Your task to perform on an android device: change text size in settings app Image 0: 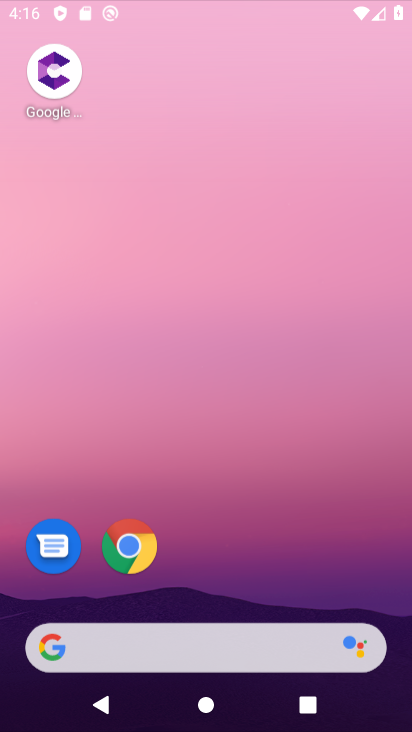
Step 0: click (270, 199)
Your task to perform on an android device: change text size in settings app Image 1: 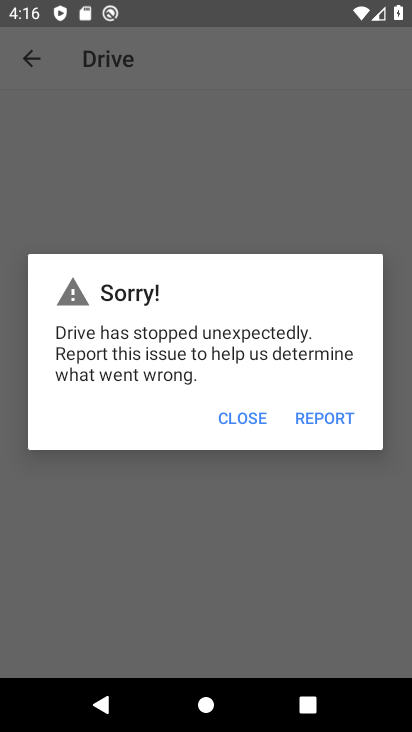
Step 1: press home button
Your task to perform on an android device: change text size in settings app Image 2: 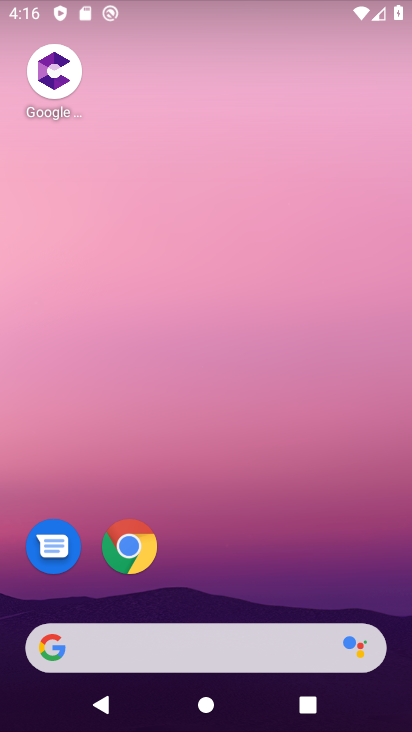
Step 2: drag from (326, 522) to (310, 57)
Your task to perform on an android device: change text size in settings app Image 3: 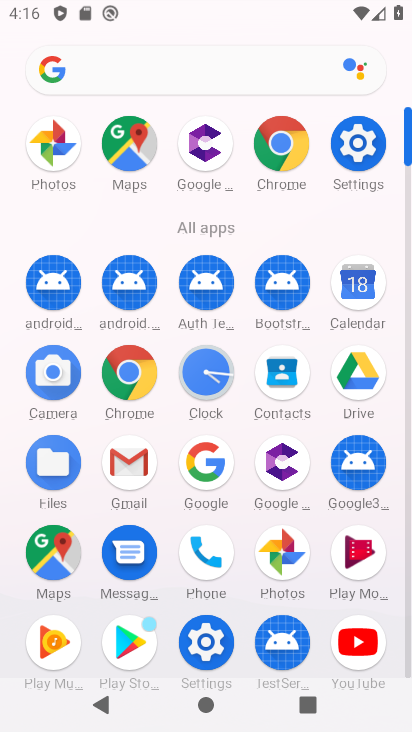
Step 3: click (365, 165)
Your task to perform on an android device: change text size in settings app Image 4: 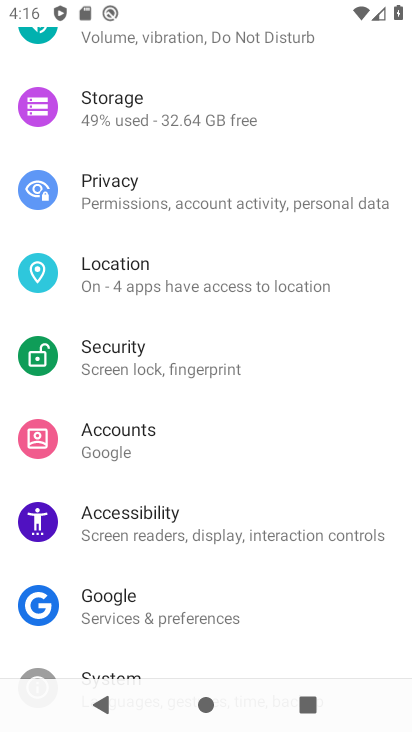
Step 4: drag from (217, 193) to (196, 444)
Your task to perform on an android device: change text size in settings app Image 5: 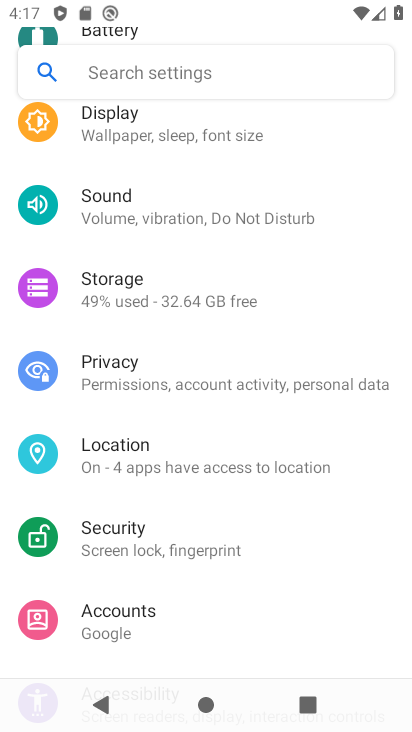
Step 5: click (150, 119)
Your task to perform on an android device: change text size in settings app Image 6: 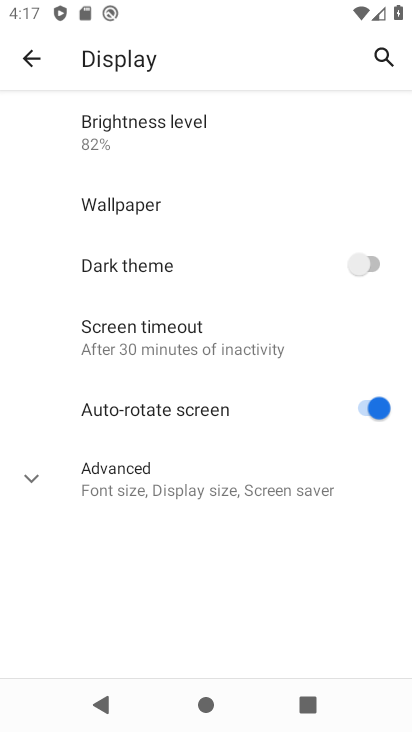
Step 6: click (146, 494)
Your task to perform on an android device: change text size in settings app Image 7: 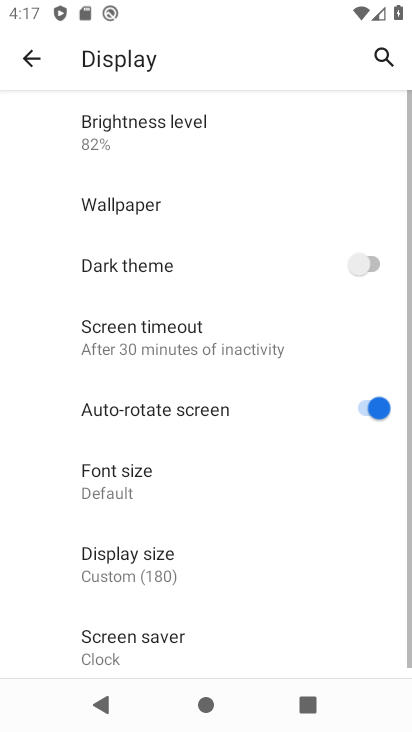
Step 7: click (155, 485)
Your task to perform on an android device: change text size in settings app Image 8: 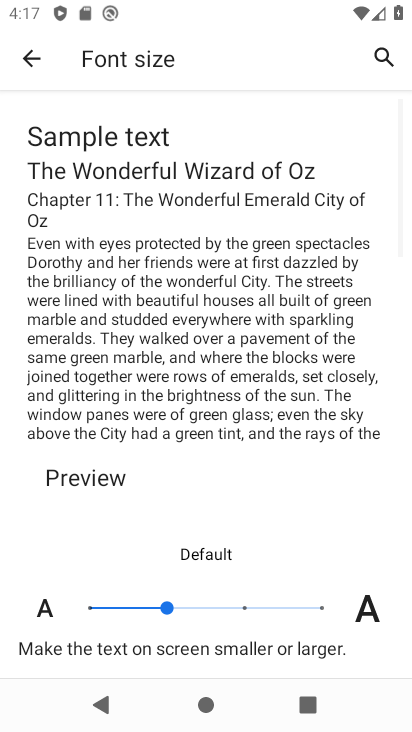
Step 8: click (235, 603)
Your task to perform on an android device: change text size in settings app Image 9: 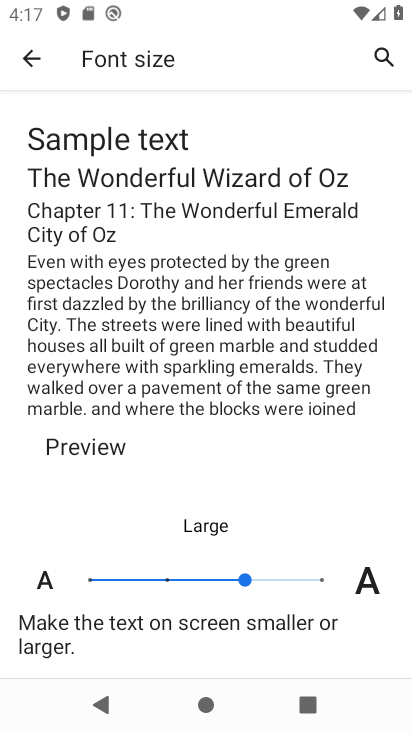
Step 9: task complete